Your task to perform on an android device: Show me popular videos on Youtube Image 0: 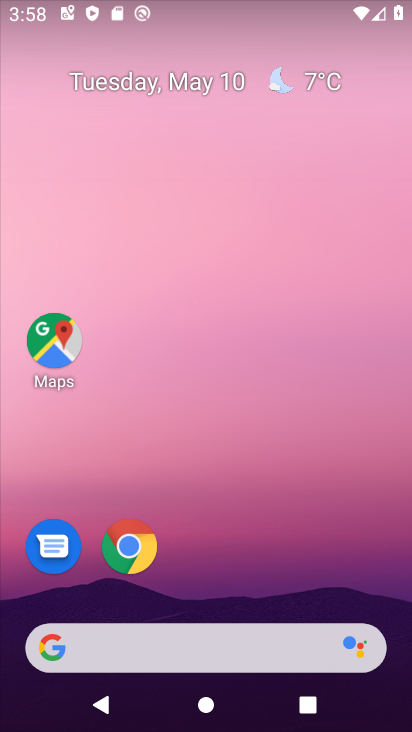
Step 0: drag from (279, 619) to (150, 204)
Your task to perform on an android device: Show me popular videos on Youtube Image 1: 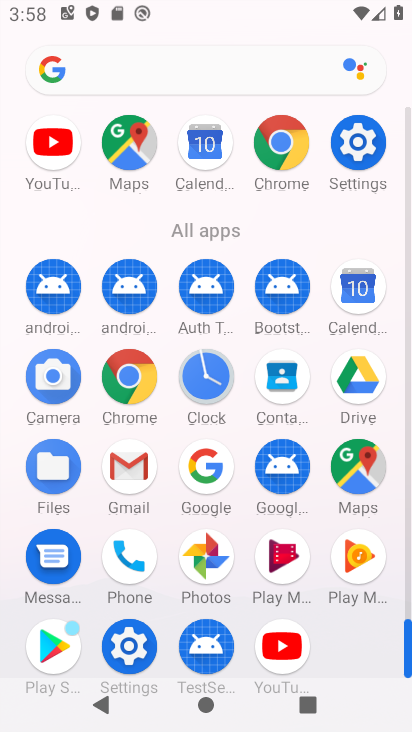
Step 1: click (286, 645)
Your task to perform on an android device: Show me popular videos on Youtube Image 2: 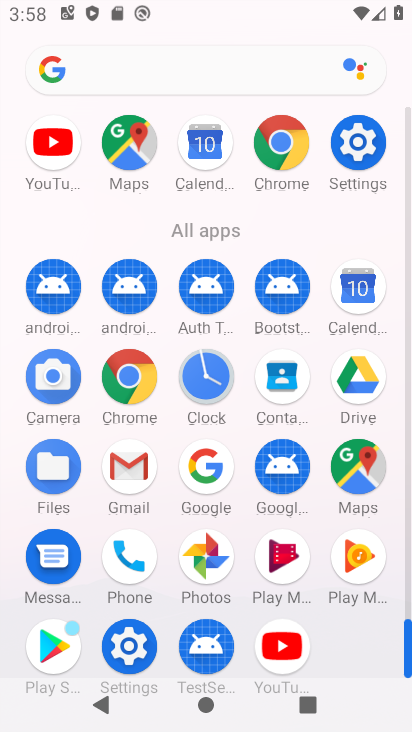
Step 2: click (286, 651)
Your task to perform on an android device: Show me popular videos on Youtube Image 3: 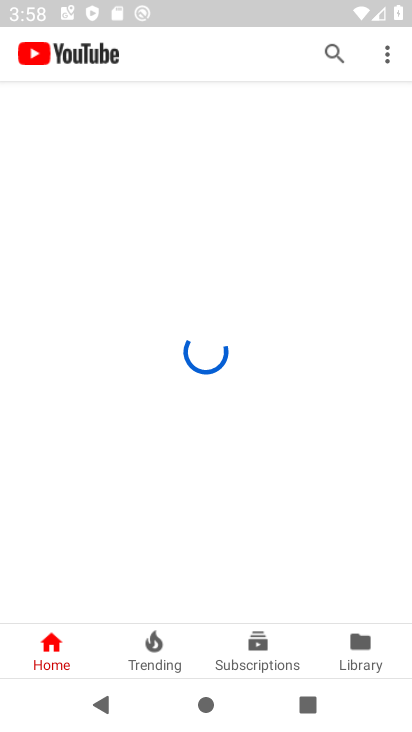
Step 3: click (286, 640)
Your task to perform on an android device: Show me popular videos on Youtube Image 4: 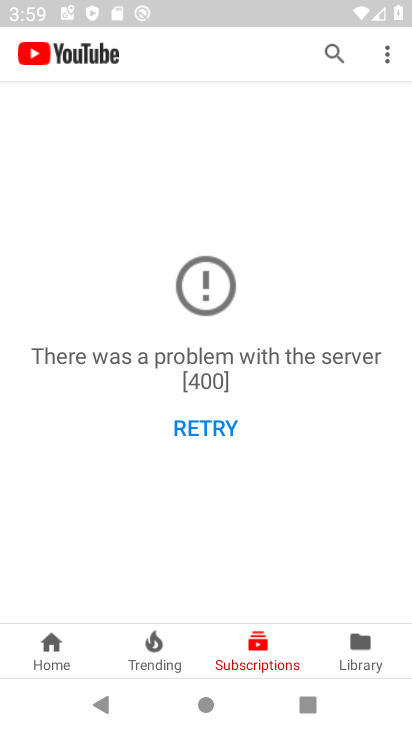
Step 4: click (53, 658)
Your task to perform on an android device: Show me popular videos on Youtube Image 5: 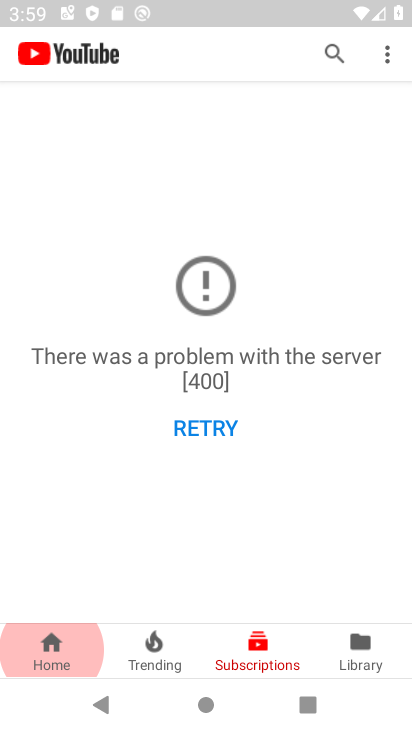
Step 5: click (53, 654)
Your task to perform on an android device: Show me popular videos on Youtube Image 6: 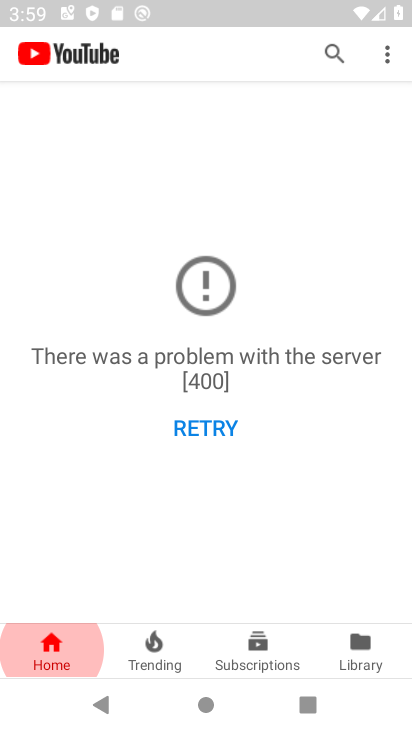
Step 6: click (53, 650)
Your task to perform on an android device: Show me popular videos on Youtube Image 7: 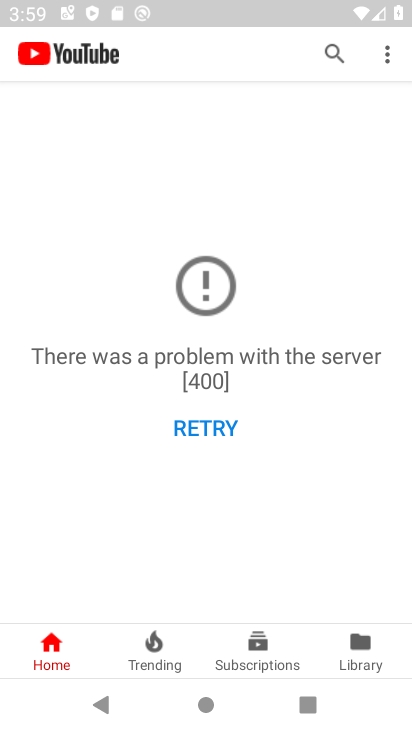
Step 7: click (362, 653)
Your task to perform on an android device: Show me popular videos on Youtube Image 8: 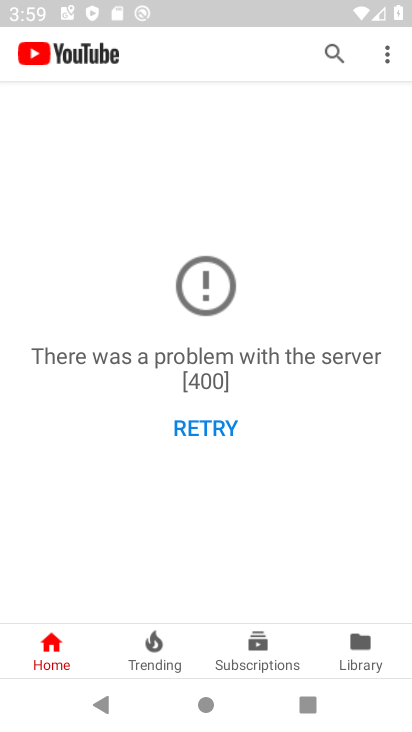
Step 8: click (160, 640)
Your task to perform on an android device: Show me popular videos on Youtube Image 9: 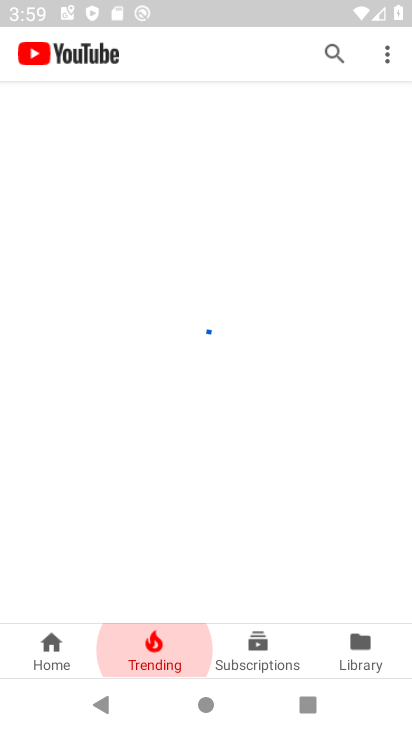
Step 9: click (142, 638)
Your task to perform on an android device: Show me popular videos on Youtube Image 10: 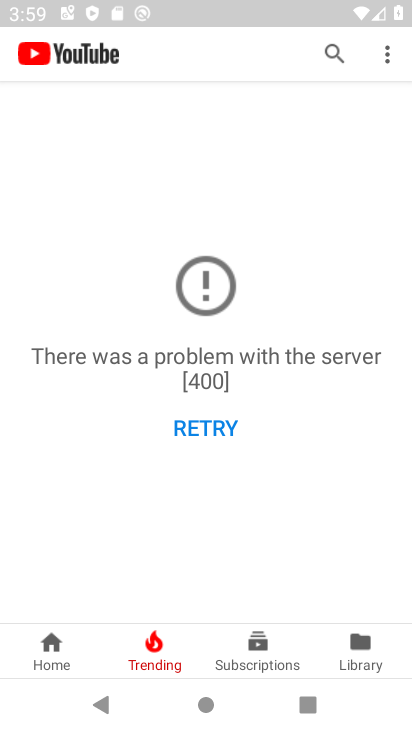
Step 10: click (144, 640)
Your task to perform on an android device: Show me popular videos on Youtube Image 11: 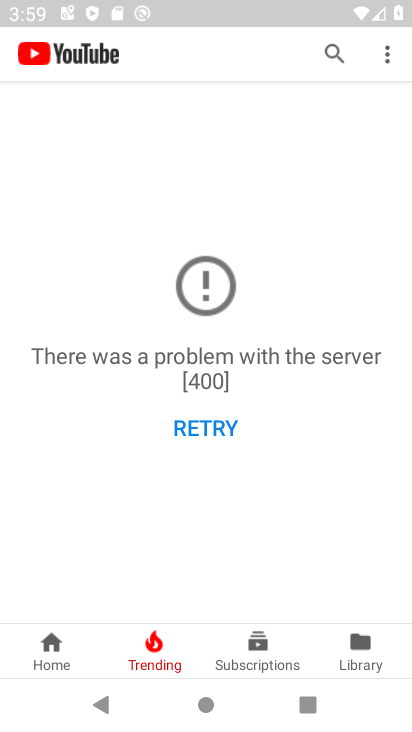
Step 11: task complete